Your task to perform on an android device: Open calendar and show me the fourth week of next month Image 0: 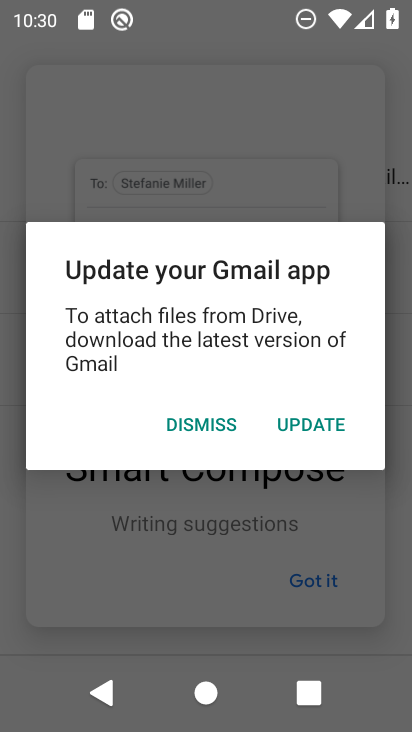
Step 0: press home button
Your task to perform on an android device: Open calendar and show me the fourth week of next month Image 1: 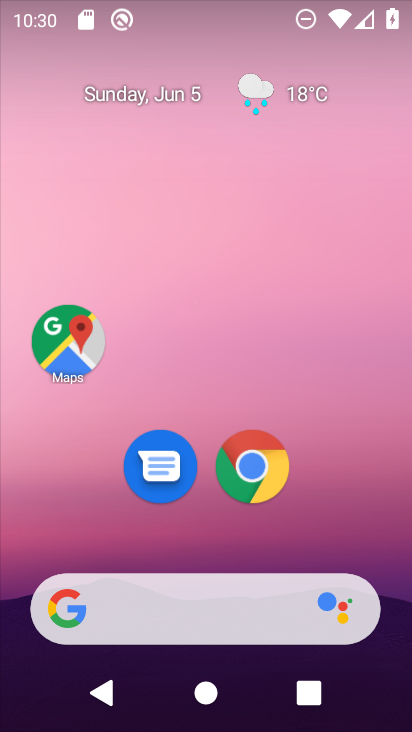
Step 1: drag from (317, 496) to (249, 15)
Your task to perform on an android device: Open calendar and show me the fourth week of next month Image 2: 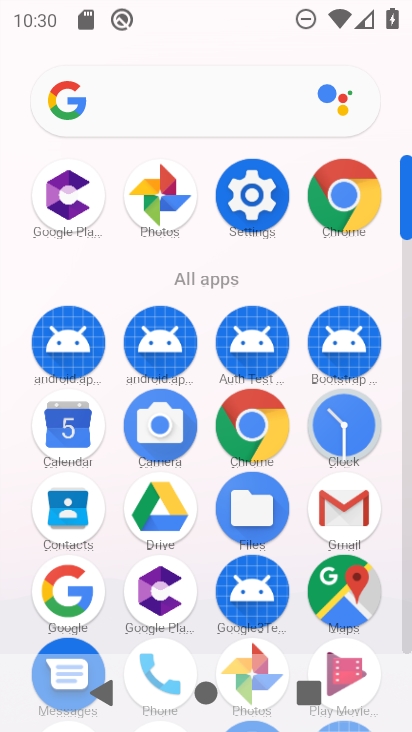
Step 2: click (65, 420)
Your task to perform on an android device: Open calendar and show me the fourth week of next month Image 3: 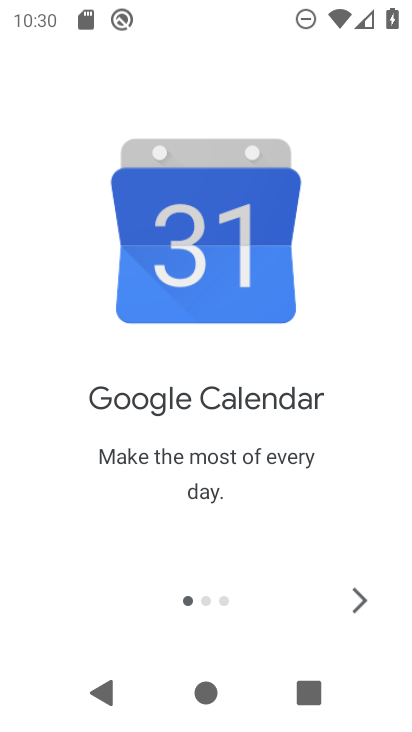
Step 3: click (366, 601)
Your task to perform on an android device: Open calendar and show me the fourth week of next month Image 4: 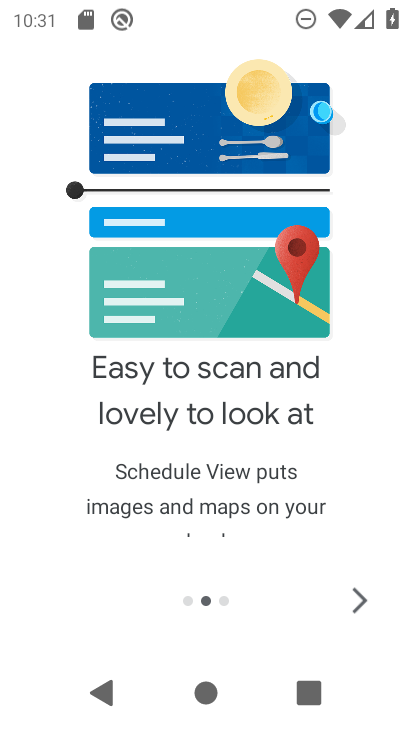
Step 4: click (366, 591)
Your task to perform on an android device: Open calendar and show me the fourth week of next month Image 5: 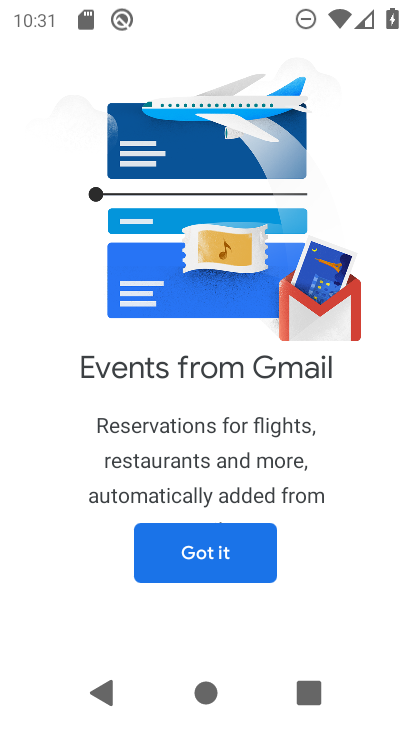
Step 5: click (245, 555)
Your task to perform on an android device: Open calendar and show me the fourth week of next month Image 6: 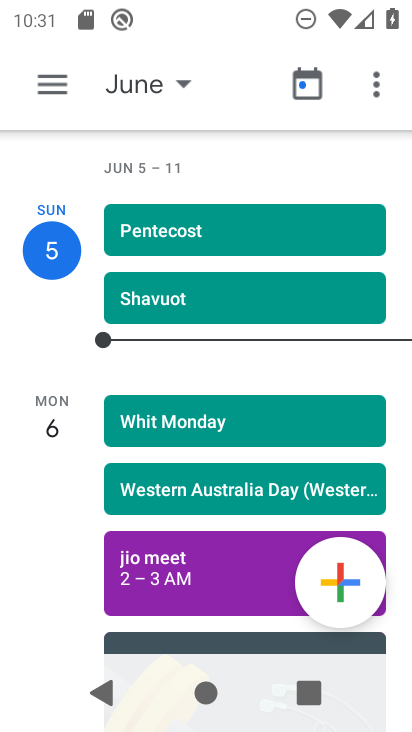
Step 6: click (136, 89)
Your task to perform on an android device: Open calendar and show me the fourth week of next month Image 7: 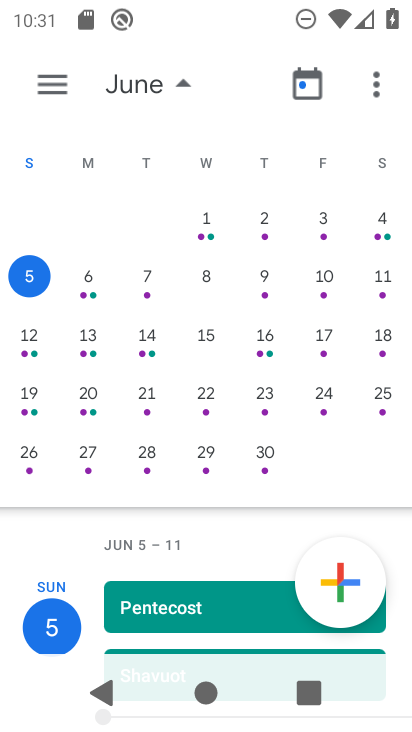
Step 7: drag from (347, 343) to (13, 322)
Your task to perform on an android device: Open calendar and show me the fourth week of next month Image 8: 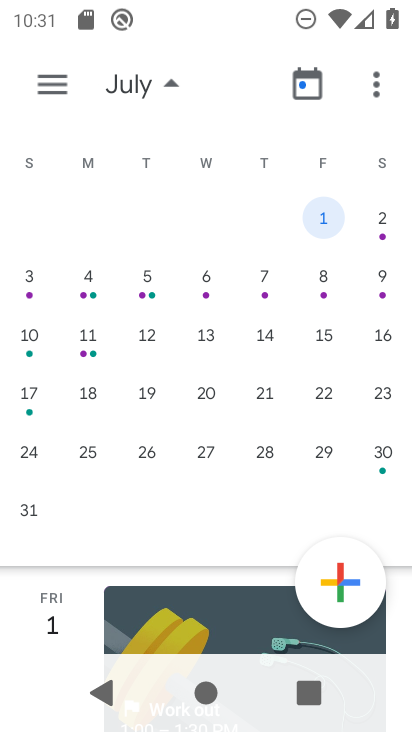
Step 8: click (28, 448)
Your task to perform on an android device: Open calendar and show me the fourth week of next month Image 9: 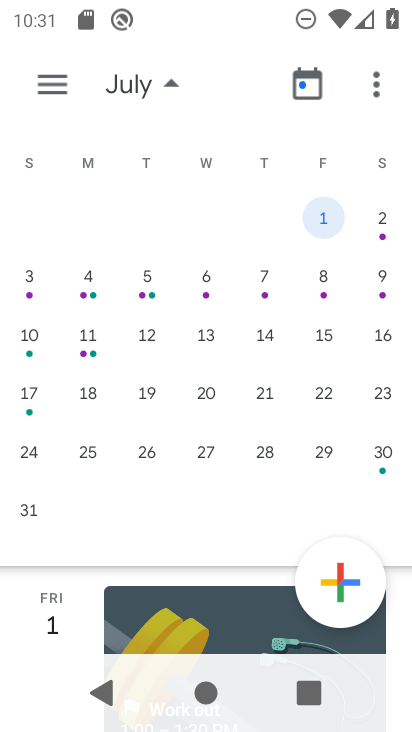
Step 9: click (30, 452)
Your task to perform on an android device: Open calendar and show me the fourth week of next month Image 10: 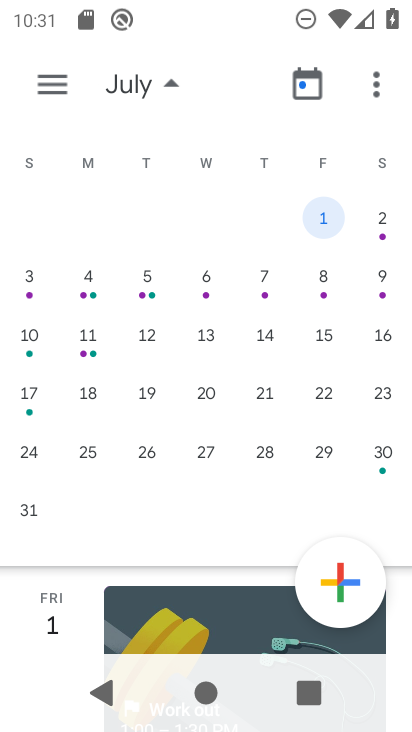
Step 10: click (32, 452)
Your task to perform on an android device: Open calendar and show me the fourth week of next month Image 11: 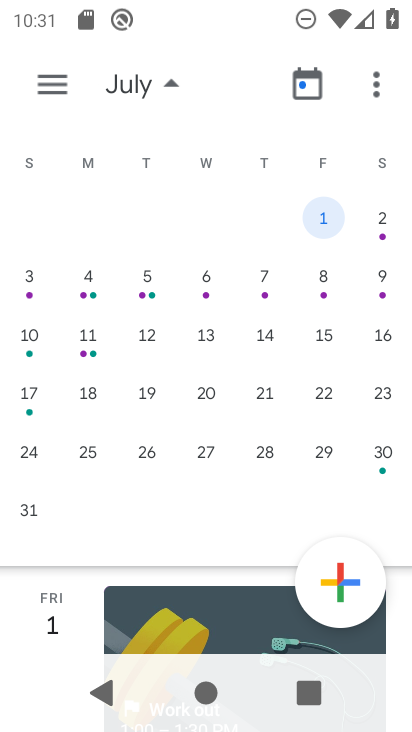
Step 11: click (34, 450)
Your task to perform on an android device: Open calendar and show me the fourth week of next month Image 12: 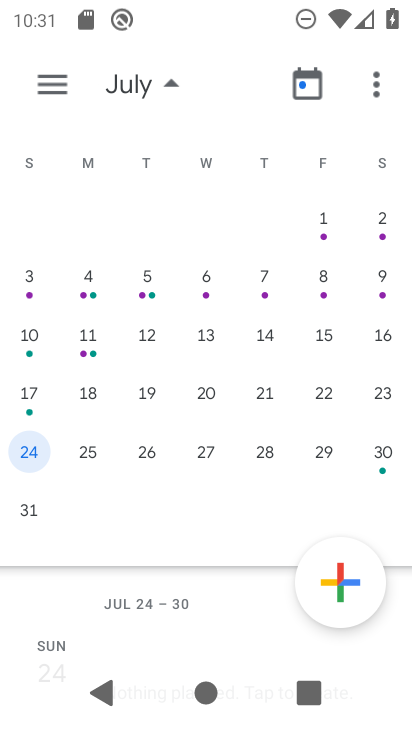
Step 12: click (48, 71)
Your task to perform on an android device: Open calendar and show me the fourth week of next month Image 13: 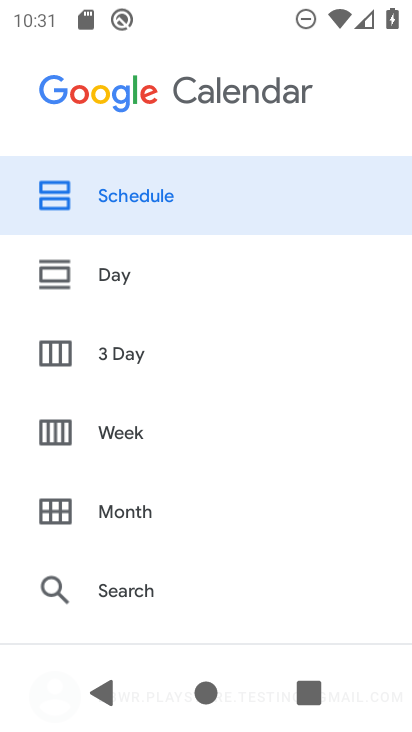
Step 13: click (142, 430)
Your task to perform on an android device: Open calendar and show me the fourth week of next month Image 14: 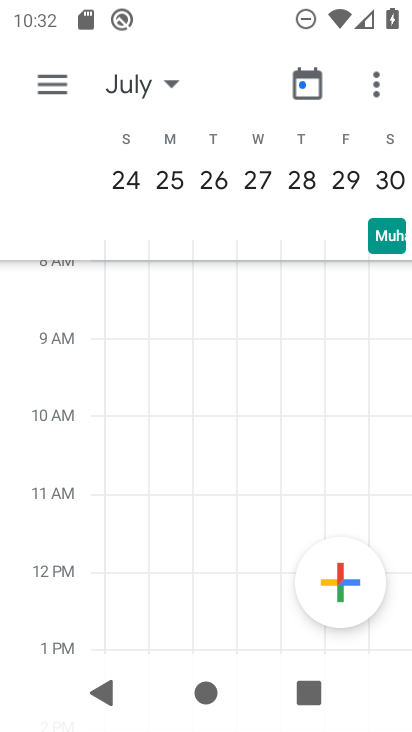
Step 14: task complete